Your task to perform on an android device: Open the stopwatch Image 0: 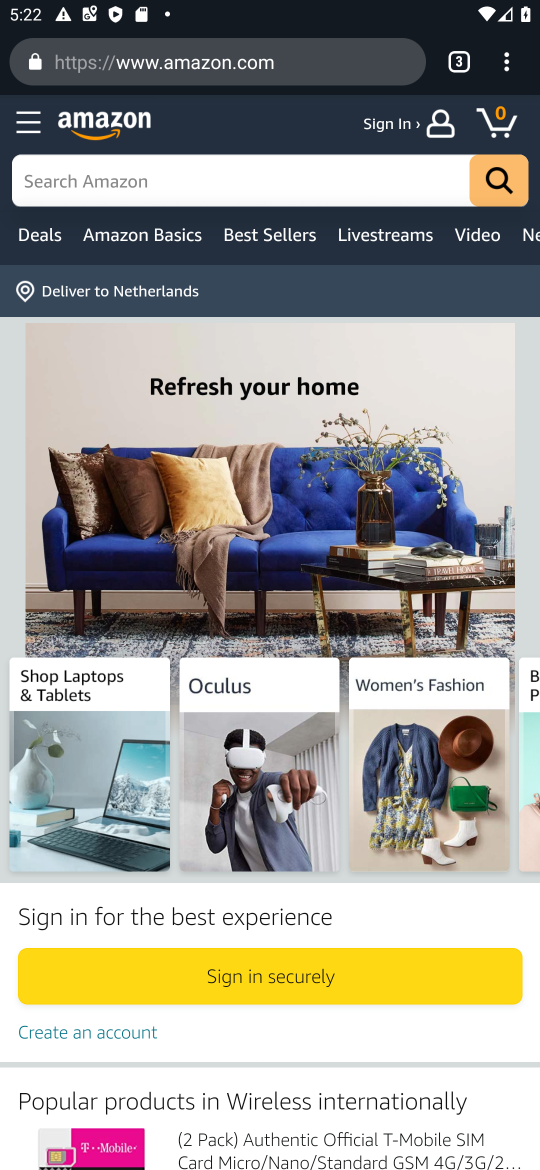
Step 0: press home button
Your task to perform on an android device: Open the stopwatch Image 1: 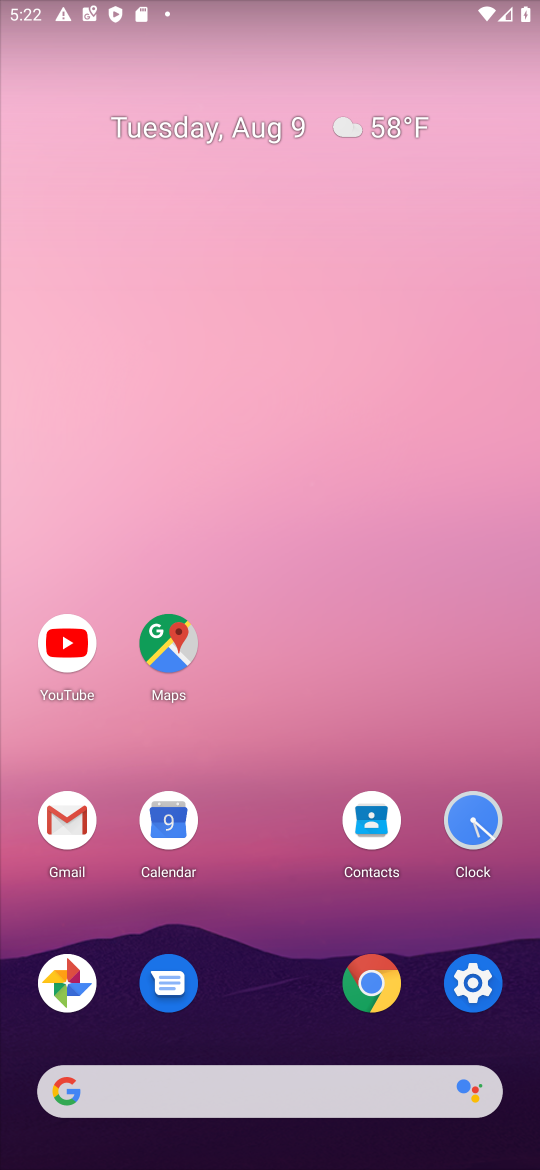
Step 1: click (474, 819)
Your task to perform on an android device: Open the stopwatch Image 2: 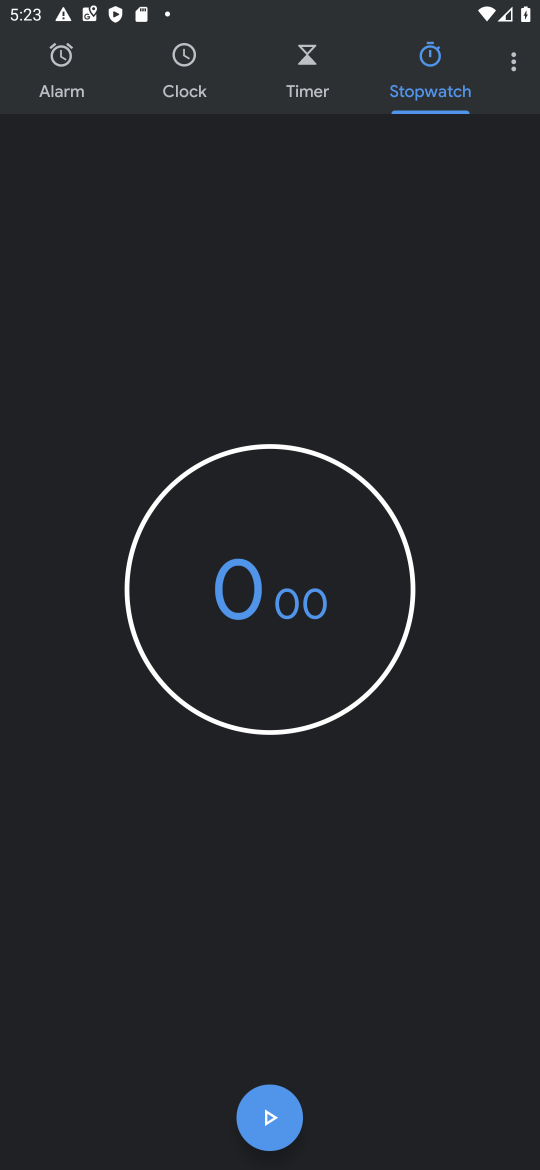
Step 2: task complete